Your task to perform on an android device: check data usage Image 0: 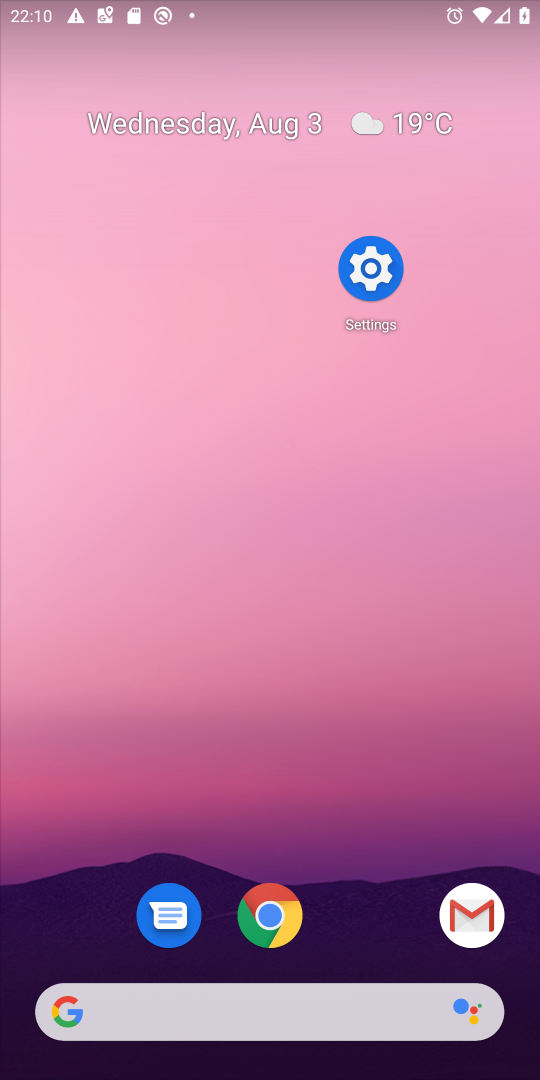
Step 0: press home button
Your task to perform on an android device: check data usage Image 1: 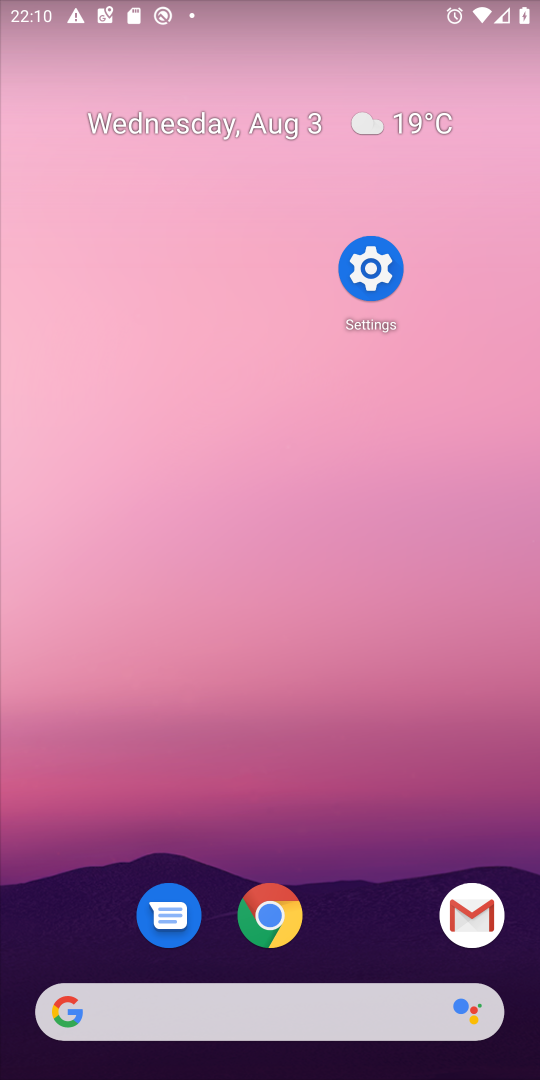
Step 1: drag from (373, 1036) to (239, 450)
Your task to perform on an android device: check data usage Image 2: 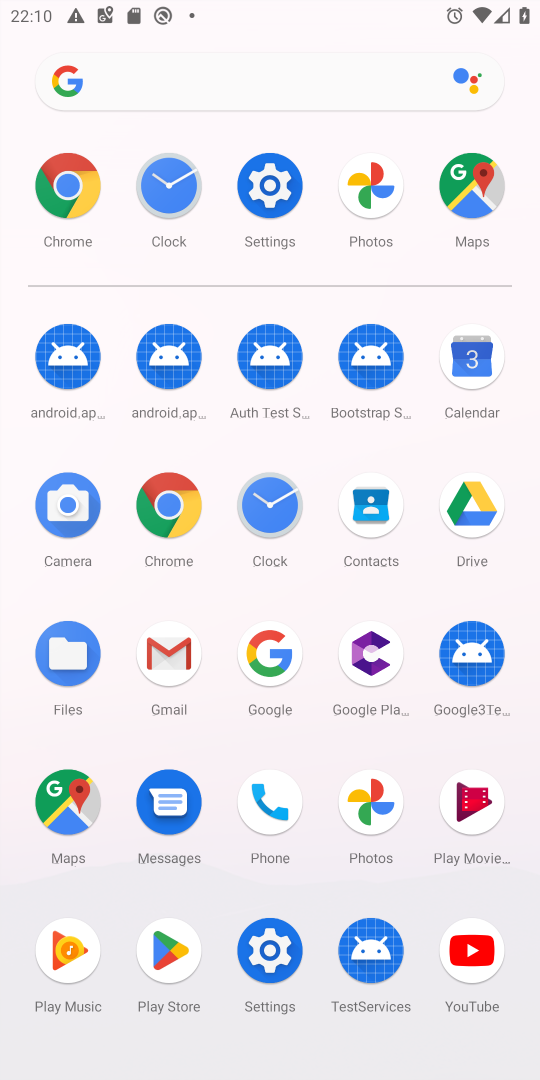
Step 2: click (279, 194)
Your task to perform on an android device: check data usage Image 3: 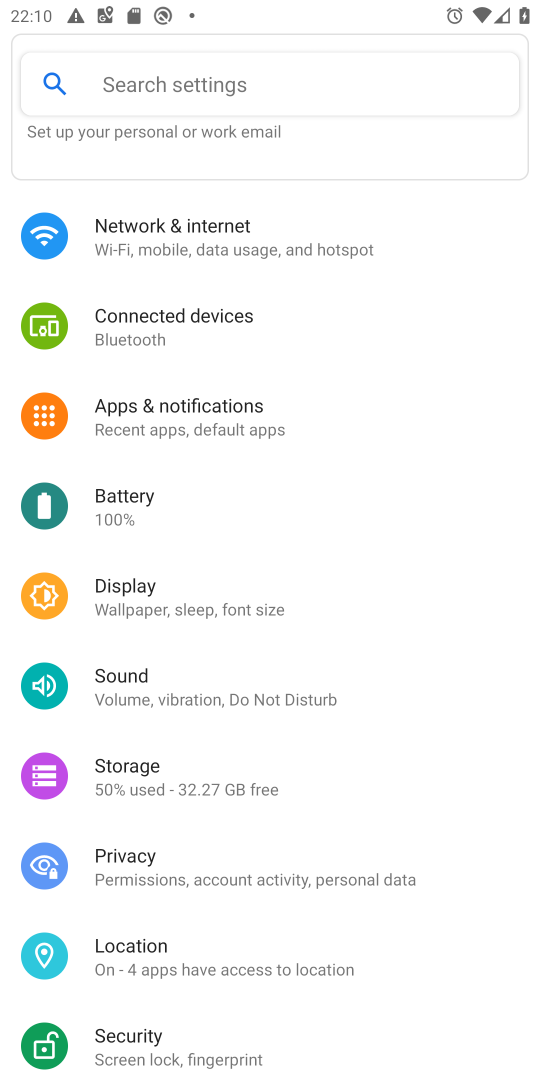
Step 3: click (142, 67)
Your task to perform on an android device: check data usage Image 4: 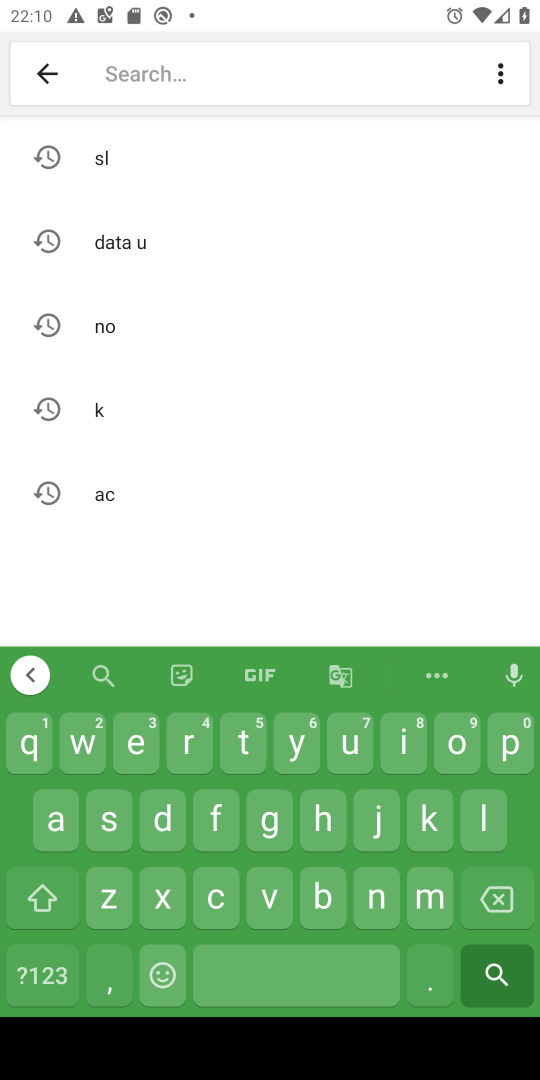
Step 4: click (134, 247)
Your task to perform on an android device: check data usage Image 5: 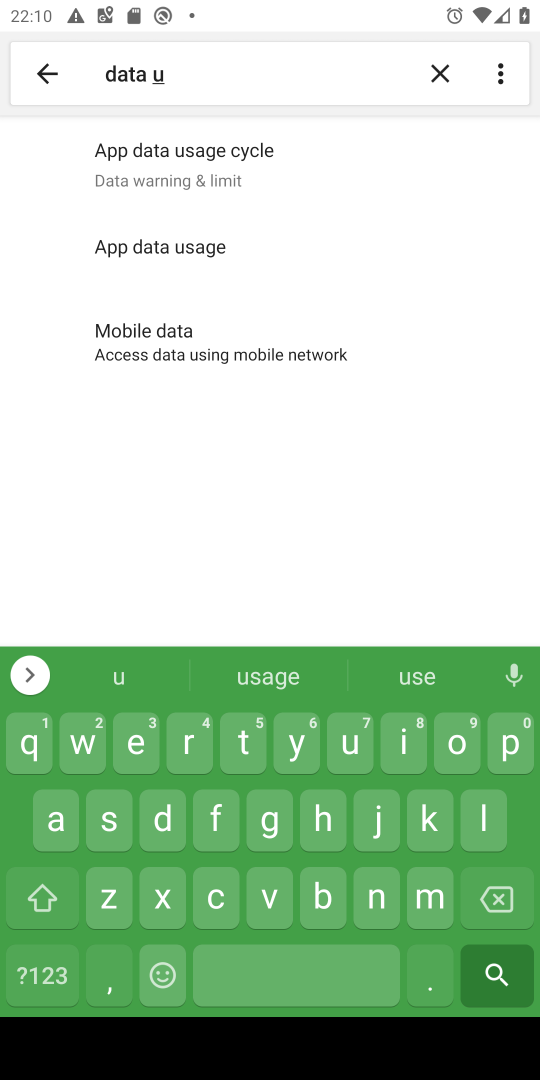
Step 5: click (134, 244)
Your task to perform on an android device: check data usage Image 6: 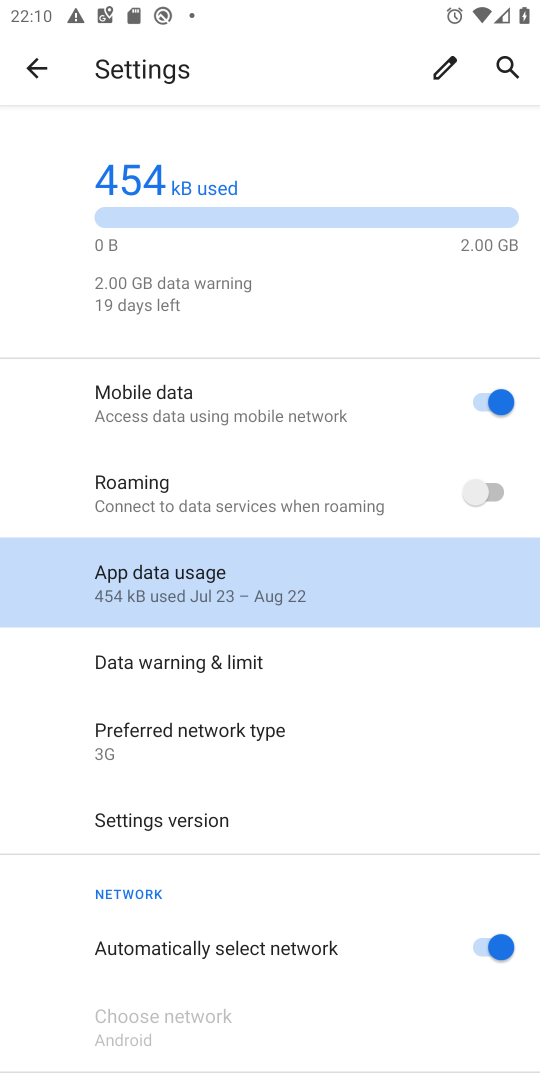
Step 6: click (224, 570)
Your task to perform on an android device: check data usage Image 7: 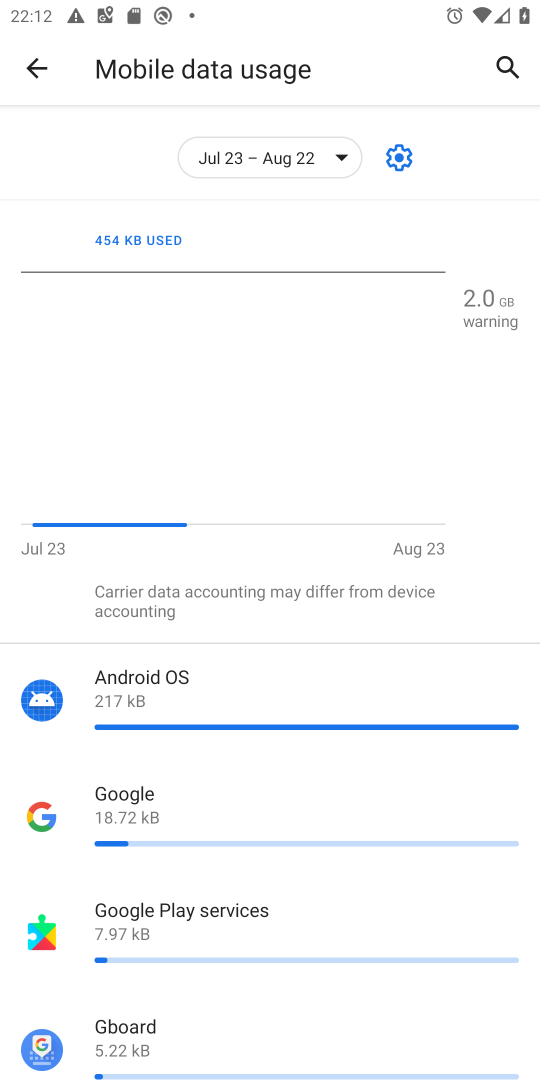
Step 7: task complete